Your task to perform on an android device: Open wifi settings Image 0: 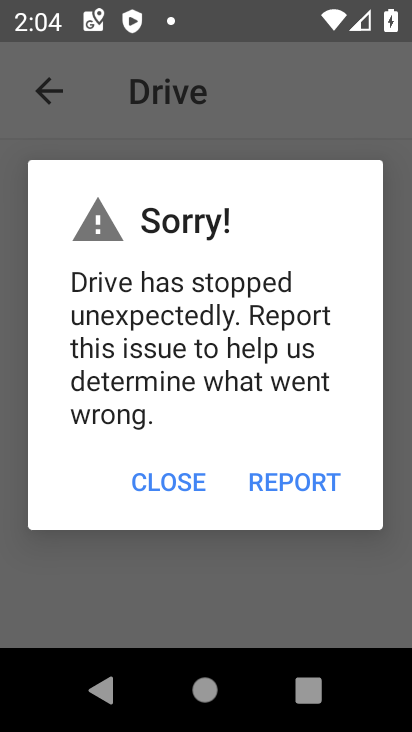
Step 0: press home button
Your task to perform on an android device: Open wifi settings Image 1: 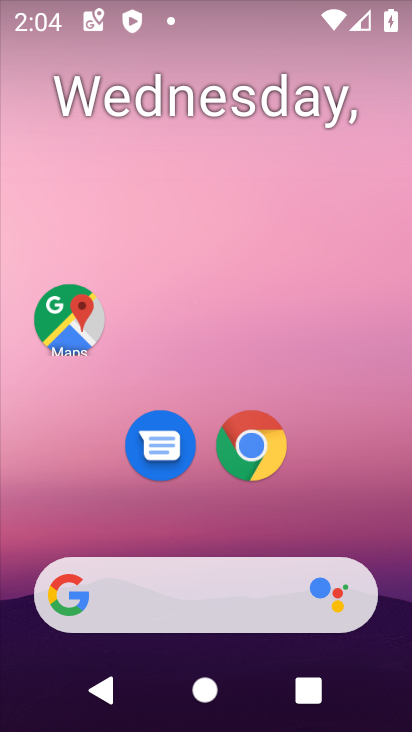
Step 1: drag from (208, 518) to (230, 120)
Your task to perform on an android device: Open wifi settings Image 2: 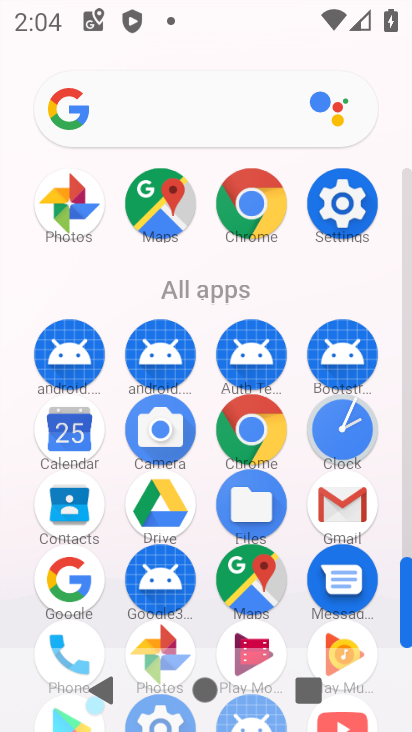
Step 2: click (348, 207)
Your task to perform on an android device: Open wifi settings Image 3: 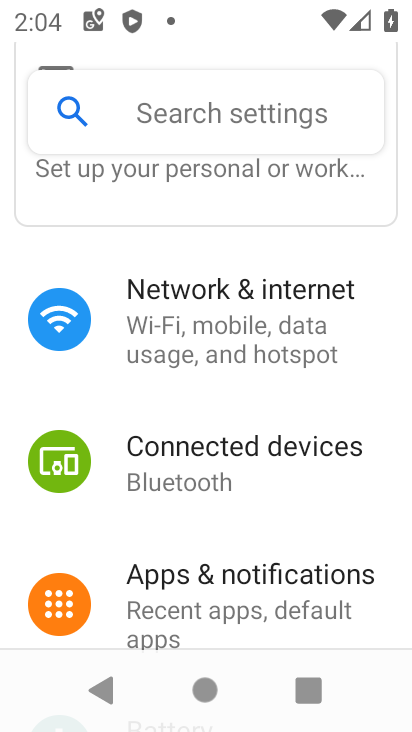
Step 3: click (185, 295)
Your task to perform on an android device: Open wifi settings Image 4: 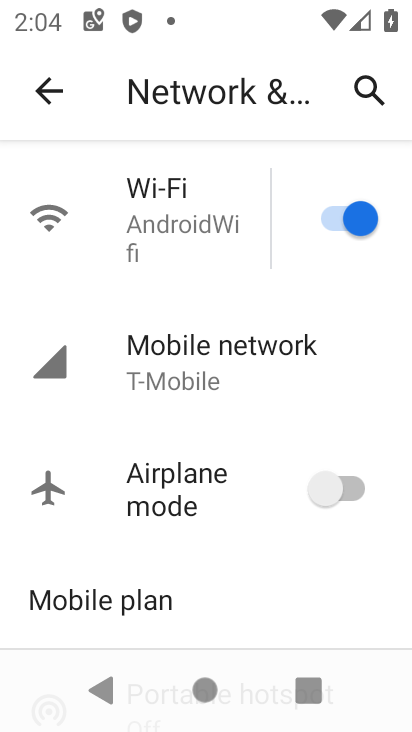
Step 4: click (189, 219)
Your task to perform on an android device: Open wifi settings Image 5: 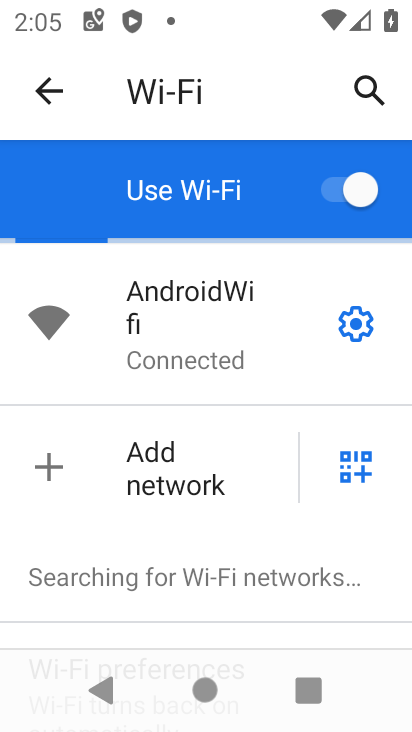
Step 5: task complete